Your task to perform on an android device: open a bookmark in the chrome app Image 0: 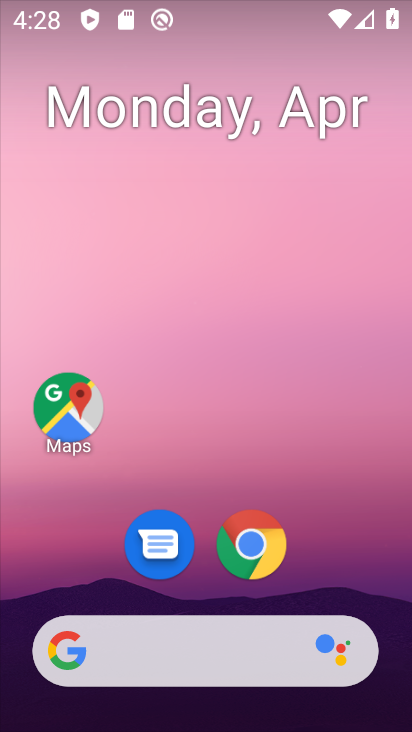
Step 0: drag from (371, 558) to (397, 156)
Your task to perform on an android device: open a bookmark in the chrome app Image 1: 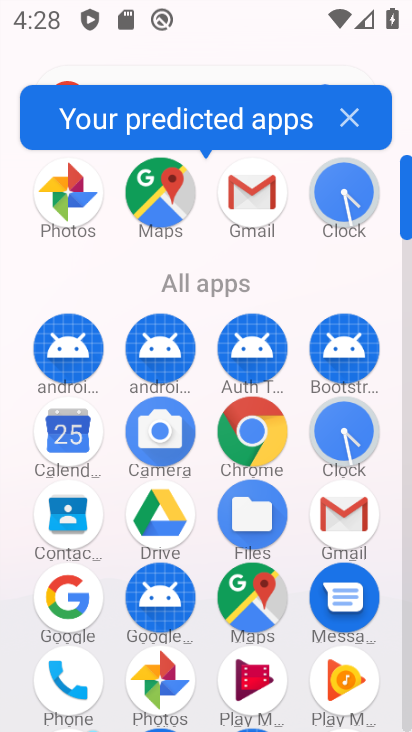
Step 1: click (244, 455)
Your task to perform on an android device: open a bookmark in the chrome app Image 2: 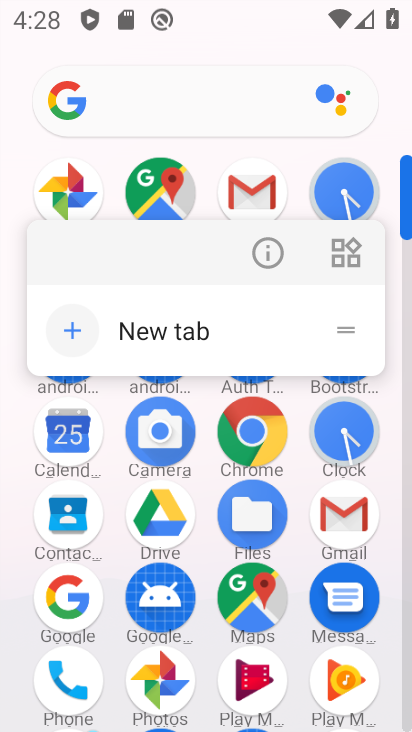
Step 2: click (257, 446)
Your task to perform on an android device: open a bookmark in the chrome app Image 3: 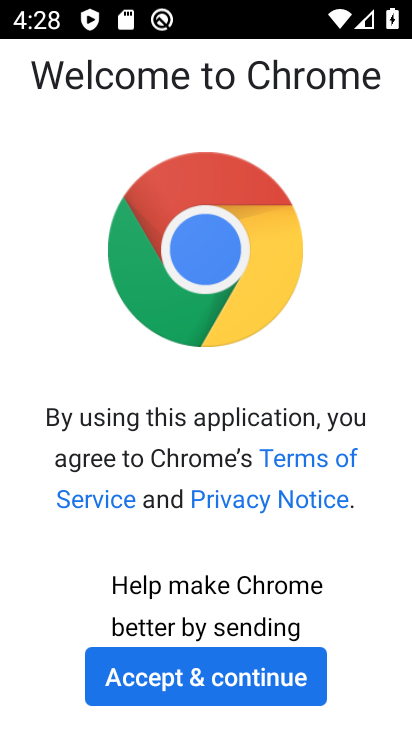
Step 3: click (250, 668)
Your task to perform on an android device: open a bookmark in the chrome app Image 4: 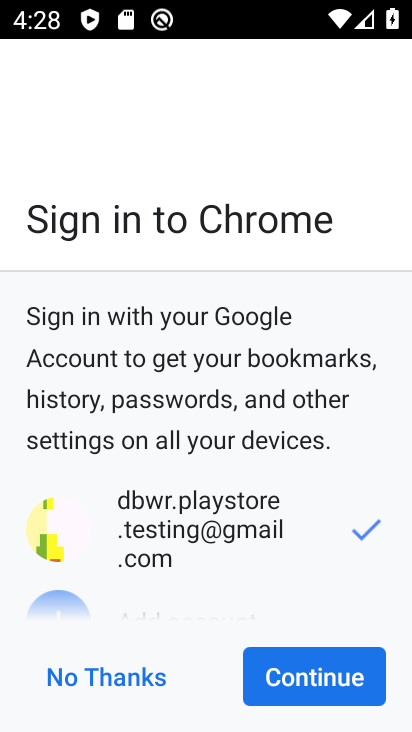
Step 4: click (283, 677)
Your task to perform on an android device: open a bookmark in the chrome app Image 5: 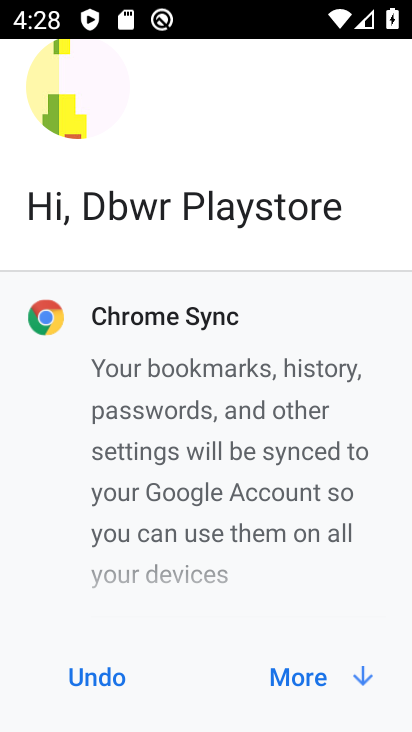
Step 5: click (304, 674)
Your task to perform on an android device: open a bookmark in the chrome app Image 6: 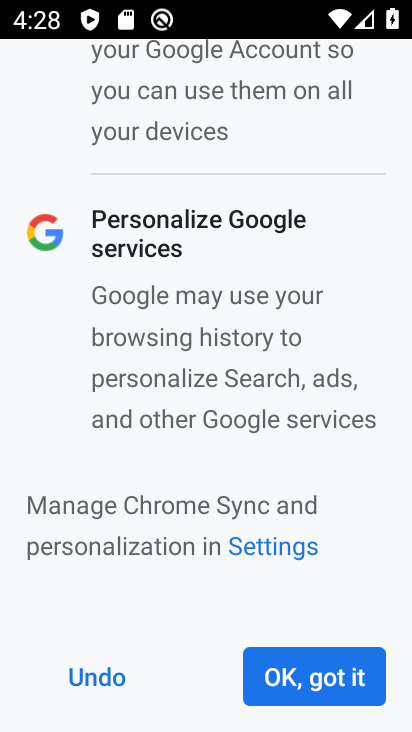
Step 6: click (304, 674)
Your task to perform on an android device: open a bookmark in the chrome app Image 7: 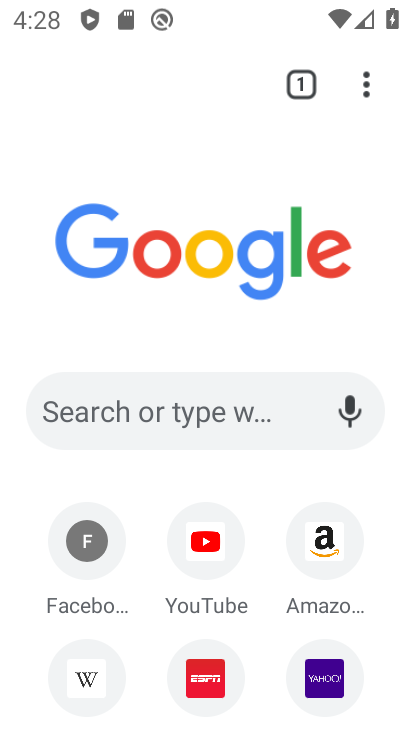
Step 7: click (364, 93)
Your task to perform on an android device: open a bookmark in the chrome app Image 8: 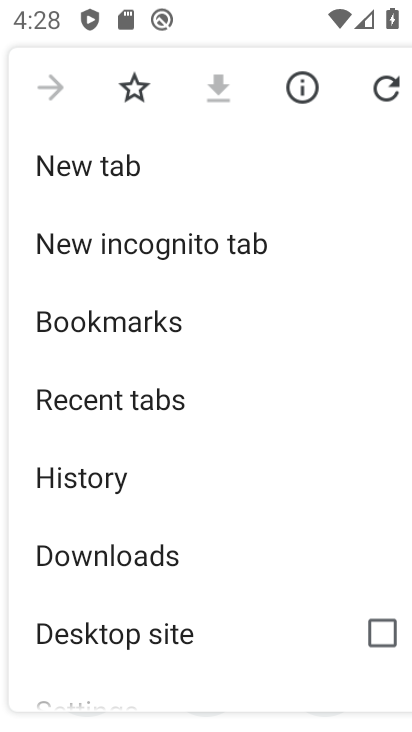
Step 8: click (210, 326)
Your task to perform on an android device: open a bookmark in the chrome app Image 9: 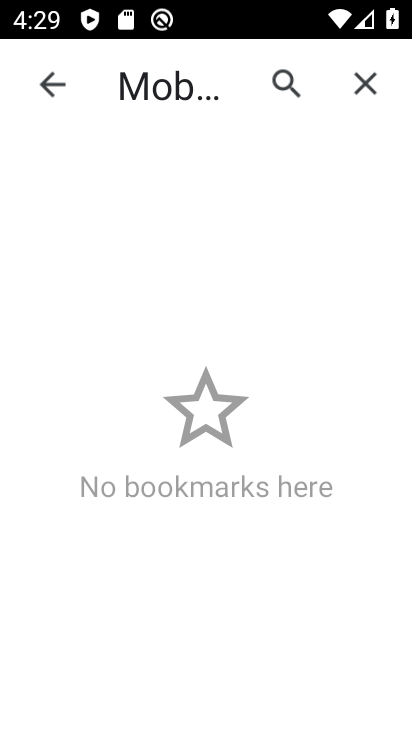
Step 9: task complete